Your task to perform on an android device: Turn on the flashlight Image 0: 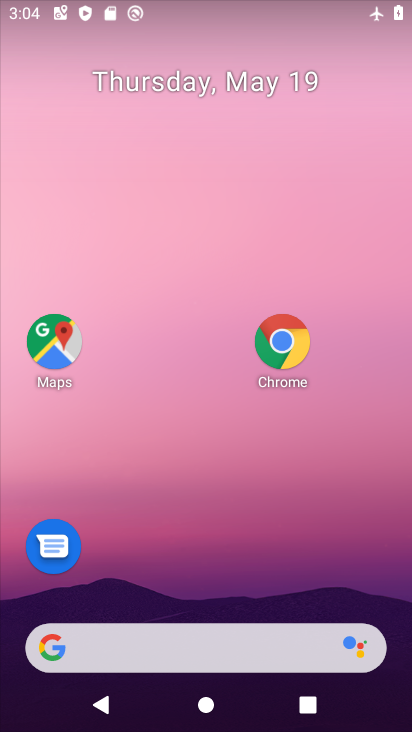
Step 0: press home button
Your task to perform on an android device: Turn on the flashlight Image 1: 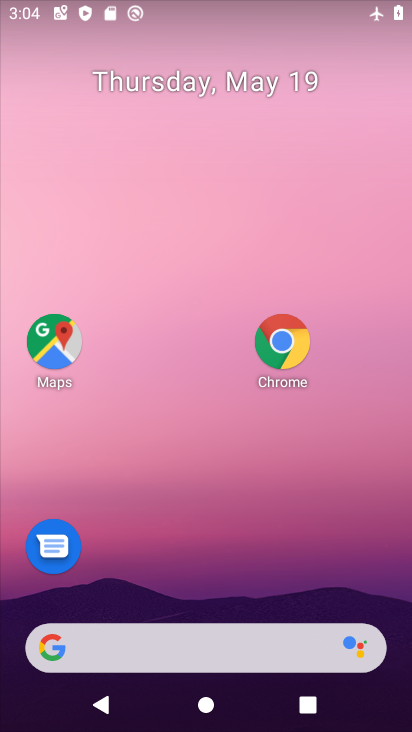
Step 1: task complete